Your task to perform on an android device: What's on my calendar tomorrow? Image 0: 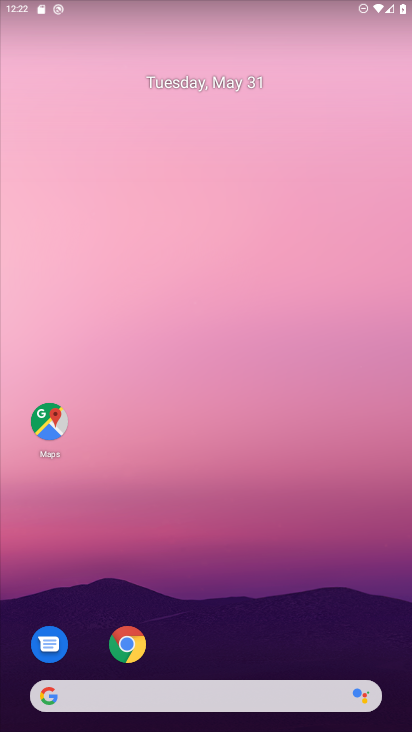
Step 0: drag from (190, 650) to (253, 49)
Your task to perform on an android device: What's on my calendar tomorrow? Image 1: 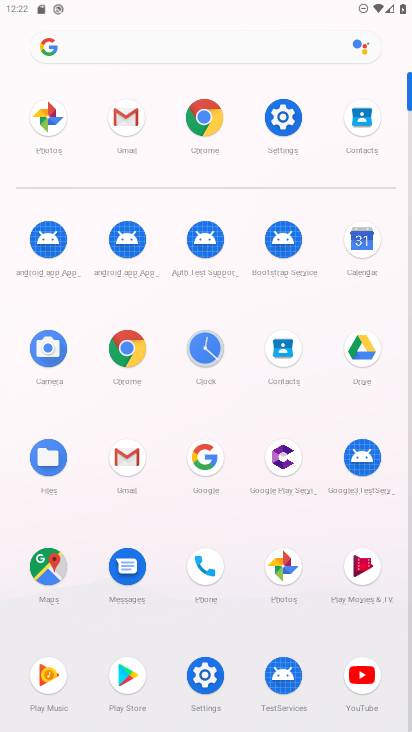
Step 1: click (370, 228)
Your task to perform on an android device: What's on my calendar tomorrow? Image 2: 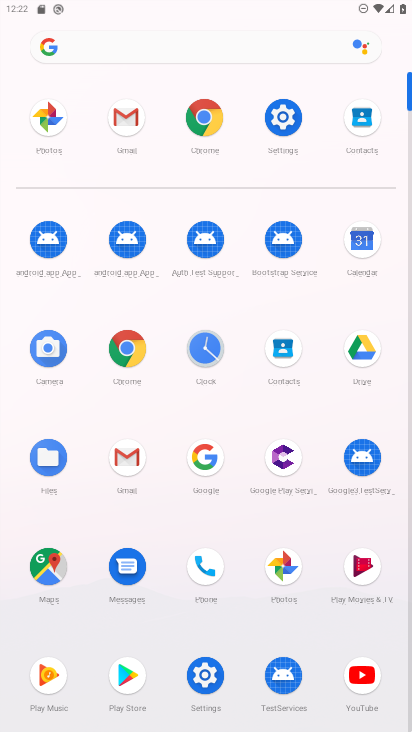
Step 2: click (370, 228)
Your task to perform on an android device: What's on my calendar tomorrow? Image 3: 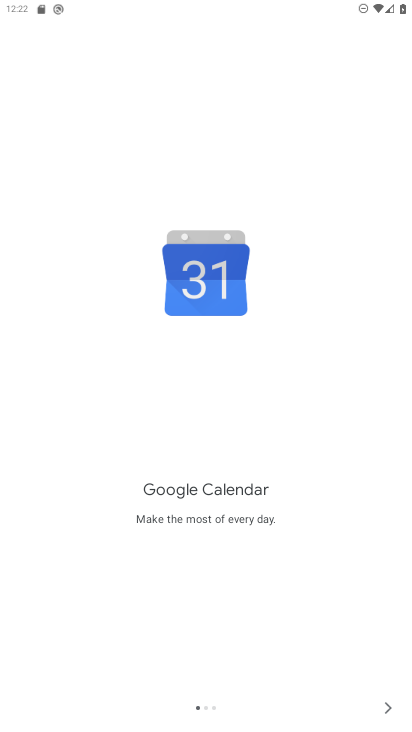
Step 3: click (384, 705)
Your task to perform on an android device: What's on my calendar tomorrow? Image 4: 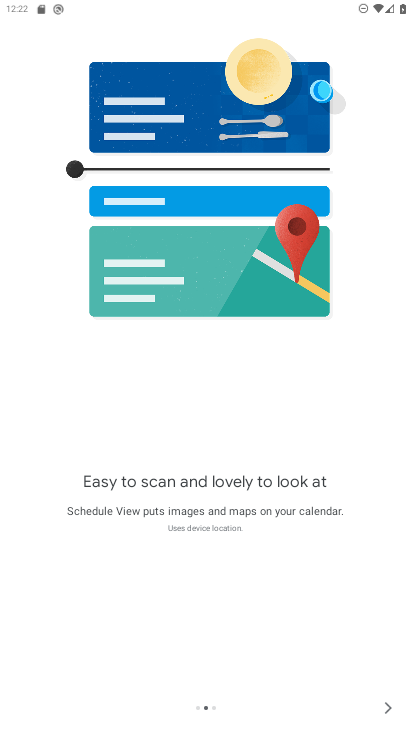
Step 4: click (374, 718)
Your task to perform on an android device: What's on my calendar tomorrow? Image 5: 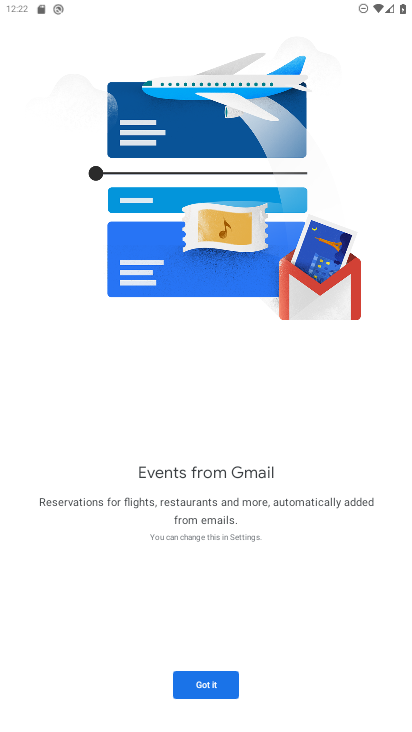
Step 5: click (176, 671)
Your task to perform on an android device: What's on my calendar tomorrow? Image 6: 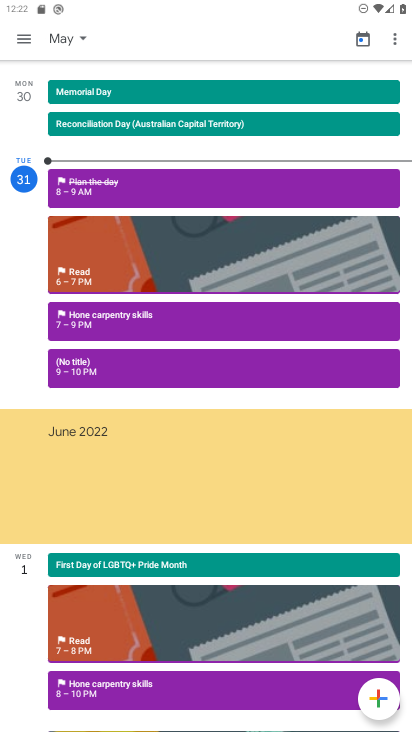
Step 6: drag from (209, 568) to (292, 194)
Your task to perform on an android device: What's on my calendar tomorrow? Image 7: 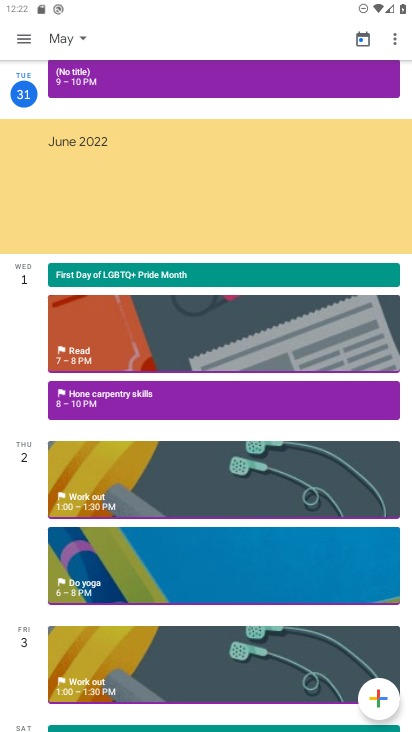
Step 7: drag from (232, 211) to (259, 680)
Your task to perform on an android device: What's on my calendar tomorrow? Image 8: 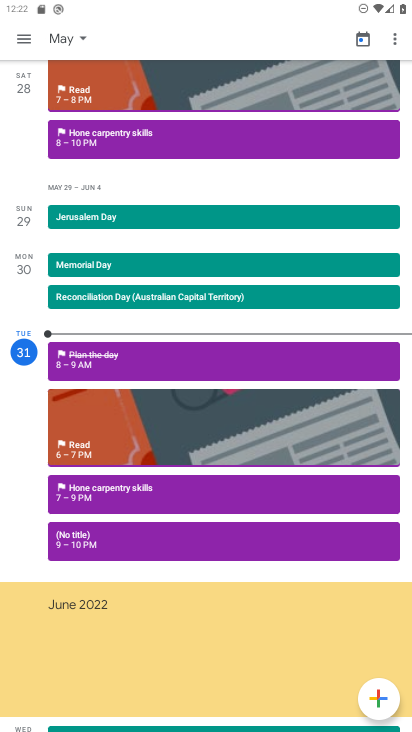
Step 8: drag from (202, 396) to (250, 257)
Your task to perform on an android device: What's on my calendar tomorrow? Image 9: 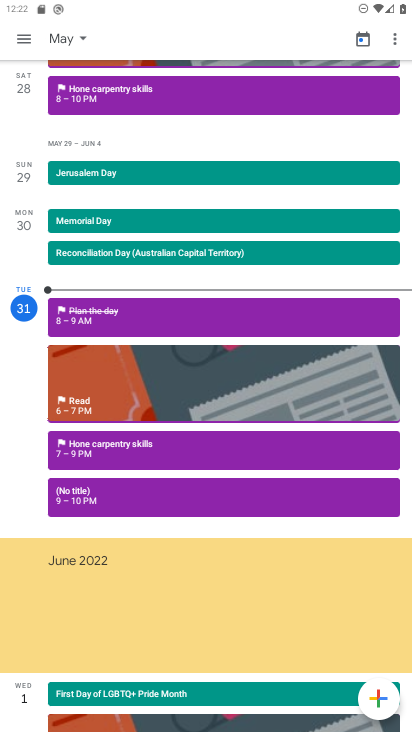
Step 9: drag from (269, 225) to (314, 616)
Your task to perform on an android device: What's on my calendar tomorrow? Image 10: 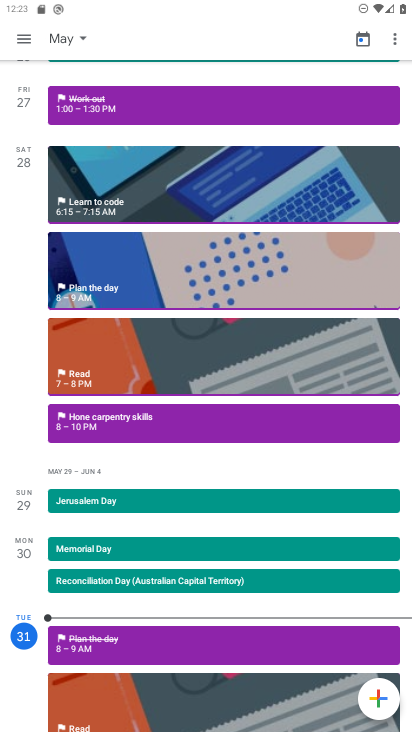
Step 10: drag from (150, 597) to (232, 213)
Your task to perform on an android device: What's on my calendar tomorrow? Image 11: 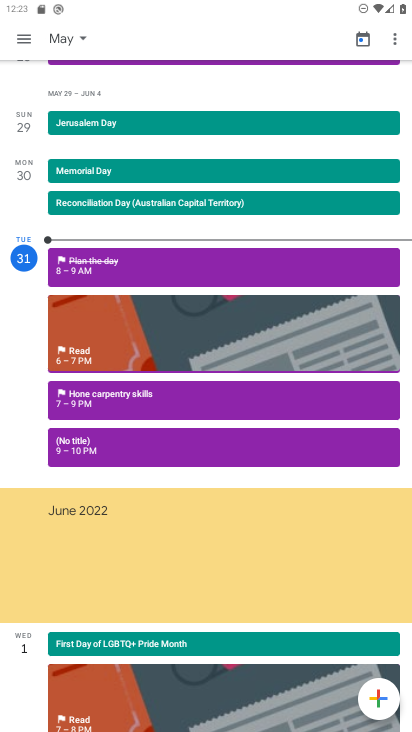
Step 11: drag from (207, 154) to (312, 725)
Your task to perform on an android device: What's on my calendar tomorrow? Image 12: 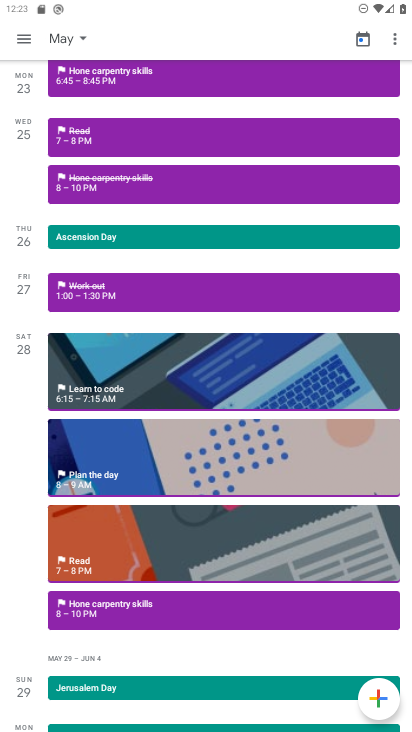
Step 12: click (50, 29)
Your task to perform on an android device: What's on my calendar tomorrow? Image 13: 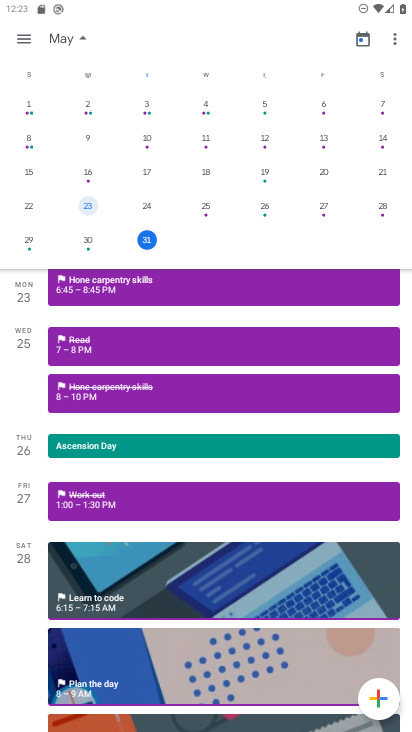
Step 13: click (51, 29)
Your task to perform on an android device: What's on my calendar tomorrow? Image 14: 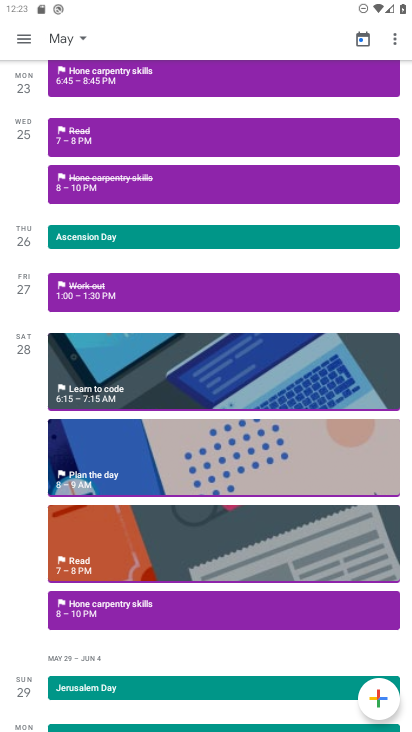
Step 14: task complete